Your task to perform on an android device: set the timer Image 0: 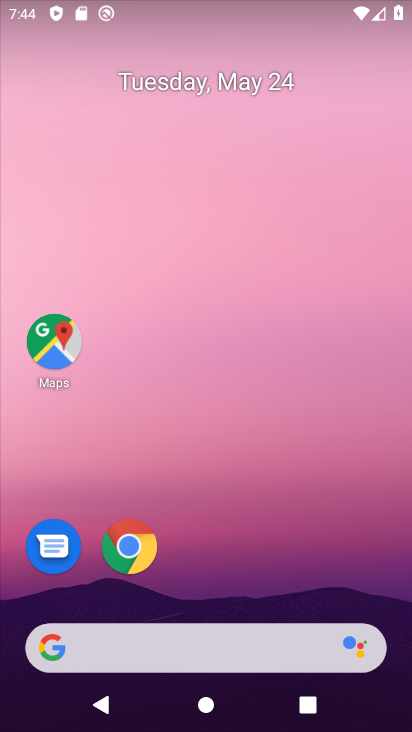
Step 0: drag from (241, 558) to (279, 25)
Your task to perform on an android device: set the timer Image 1: 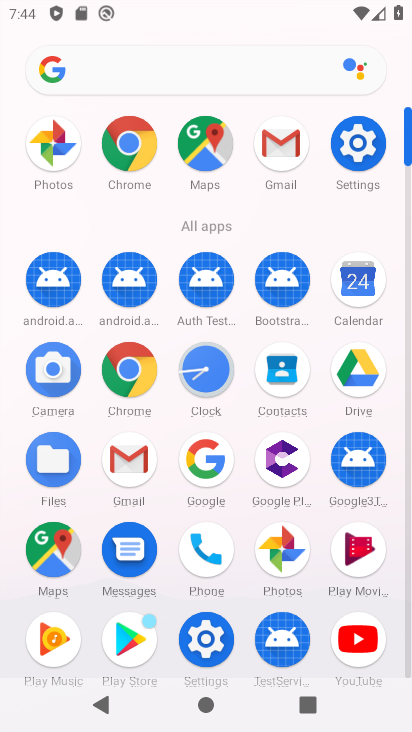
Step 1: click (209, 372)
Your task to perform on an android device: set the timer Image 2: 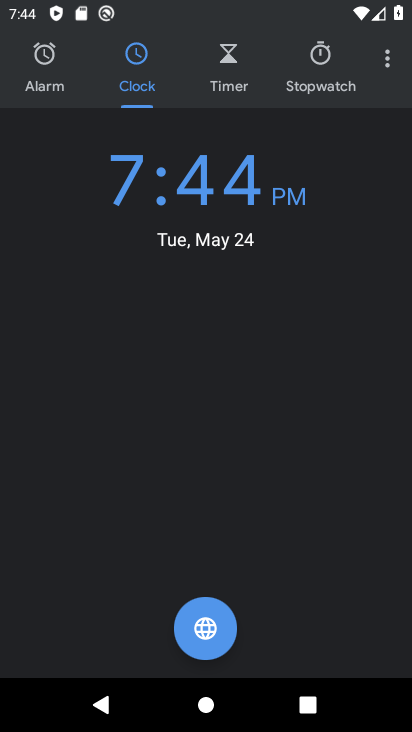
Step 2: click (229, 81)
Your task to perform on an android device: set the timer Image 3: 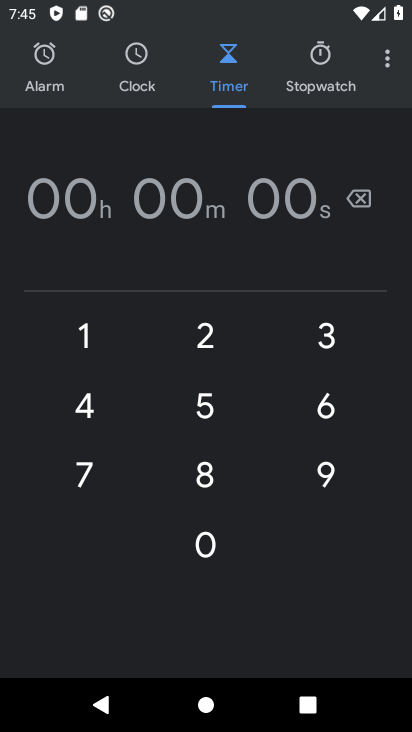
Step 3: click (91, 331)
Your task to perform on an android device: set the timer Image 4: 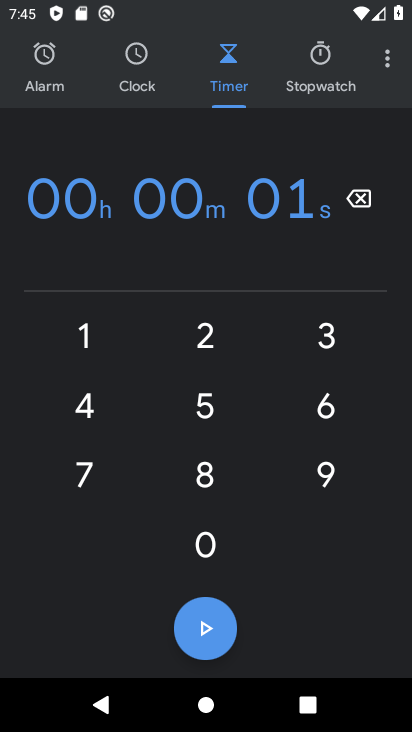
Step 4: click (207, 333)
Your task to perform on an android device: set the timer Image 5: 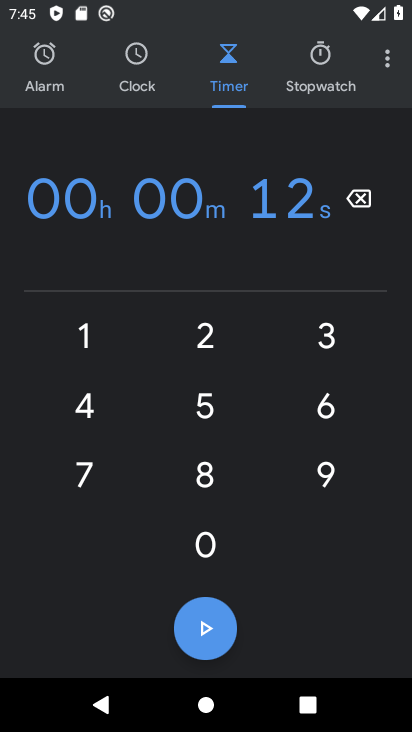
Step 5: task complete